Your task to perform on an android device: Clear the shopping cart on costco.com. Search for lenovo thinkpad on costco.com, select the first entry, add it to the cart, then select checkout. Image 0: 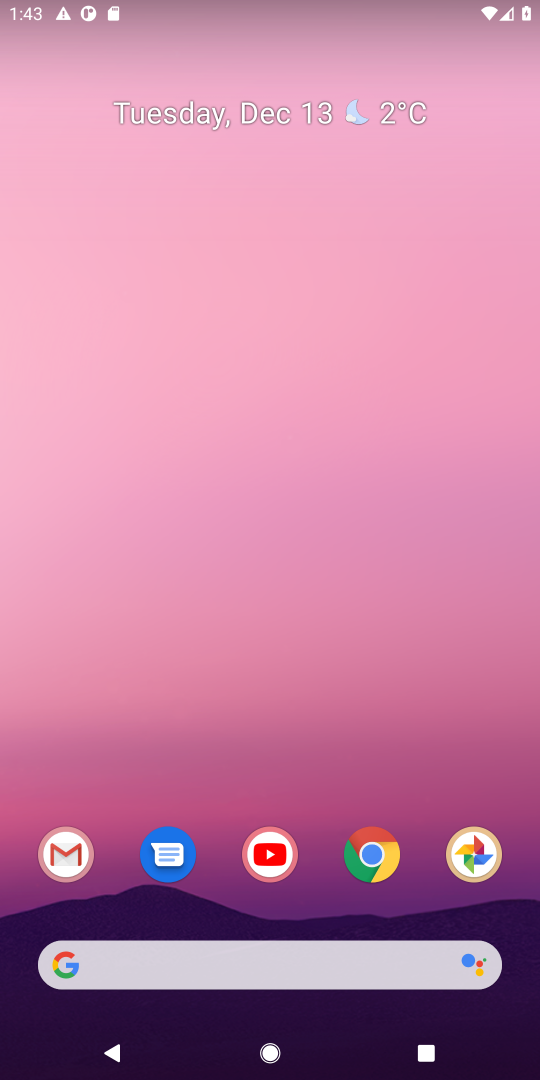
Step 0: click (232, 956)
Your task to perform on an android device: Clear the shopping cart on costco.com. Search for lenovo thinkpad on costco.com, select the first entry, add it to the cart, then select checkout. Image 1: 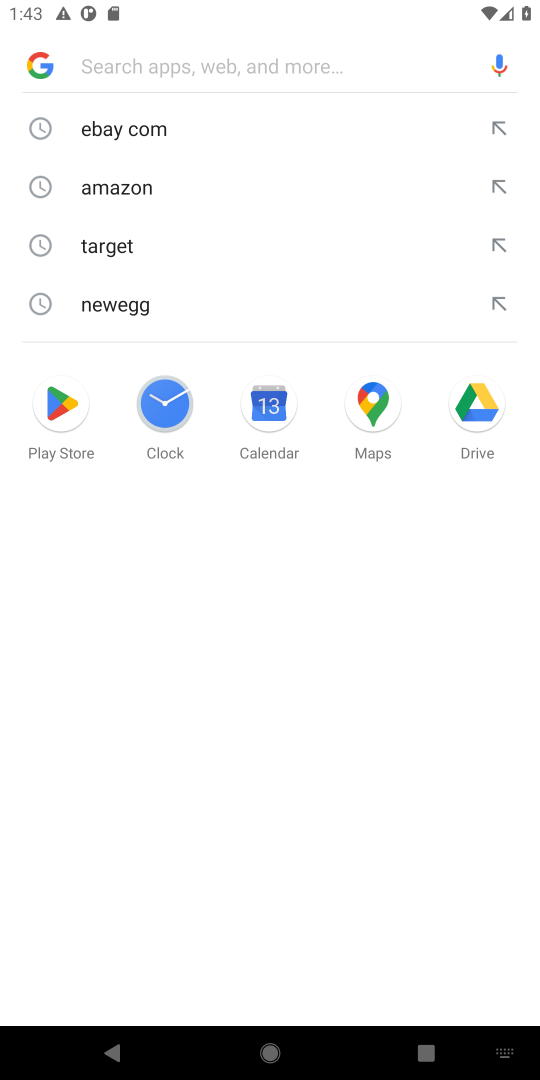
Step 1: type "costco"
Your task to perform on an android device: Clear the shopping cart on costco.com. Search for lenovo thinkpad on costco.com, select the first entry, add it to the cart, then select checkout. Image 2: 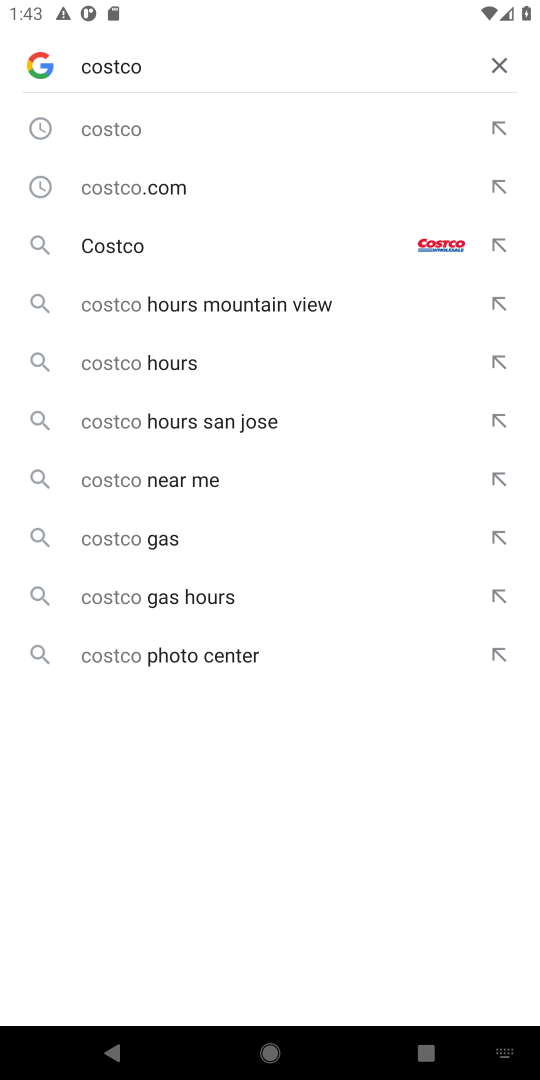
Step 2: click (279, 250)
Your task to perform on an android device: Clear the shopping cart on costco.com. Search for lenovo thinkpad on costco.com, select the first entry, add it to the cart, then select checkout. Image 3: 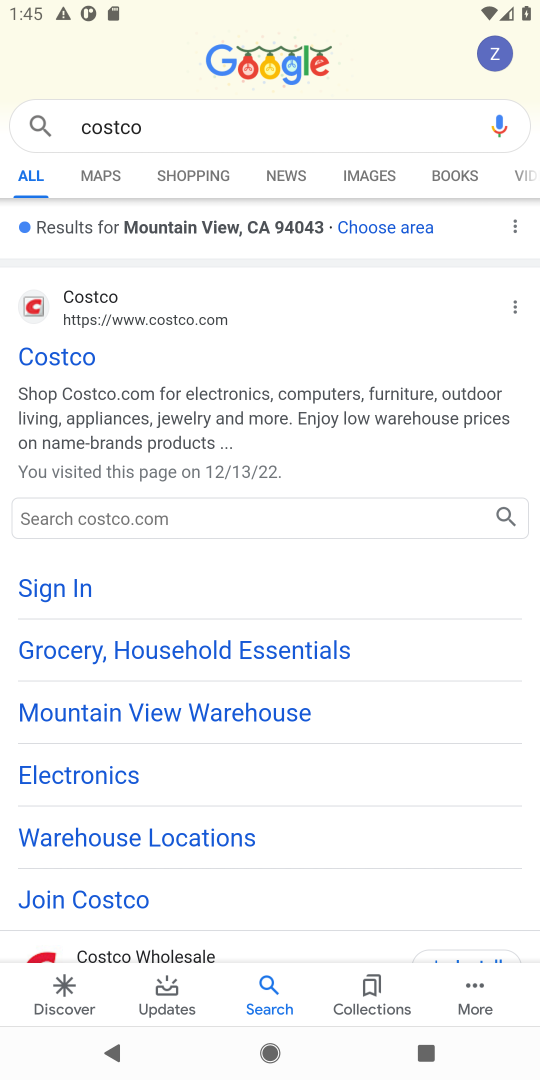
Step 3: click (52, 355)
Your task to perform on an android device: Clear the shopping cart on costco.com. Search for lenovo thinkpad on costco.com, select the first entry, add it to the cart, then select checkout. Image 4: 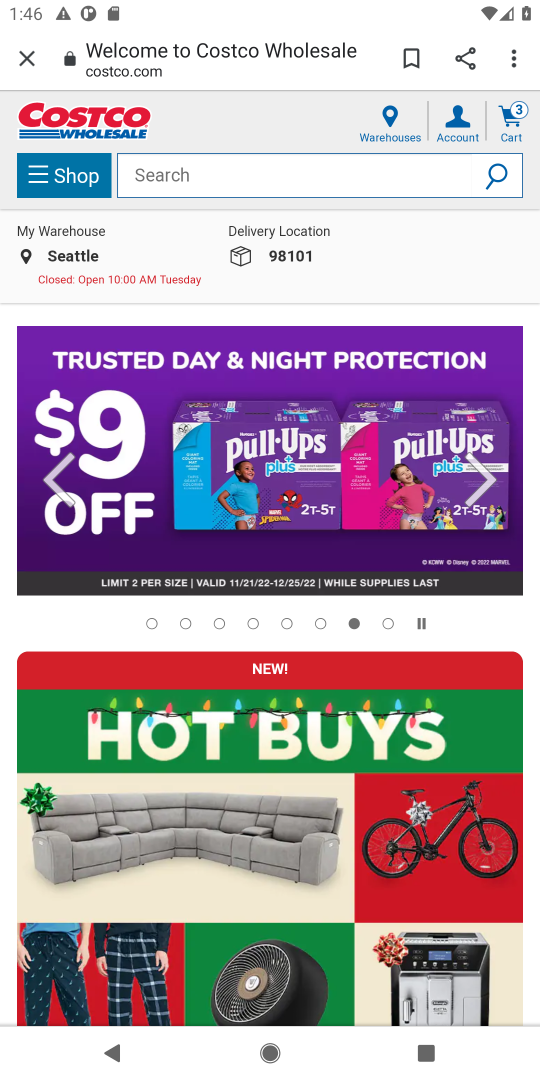
Step 4: click (389, 188)
Your task to perform on an android device: Clear the shopping cart on costco.com. Search for lenovo thinkpad on costco.com, select the first entry, add it to the cart, then select checkout. Image 5: 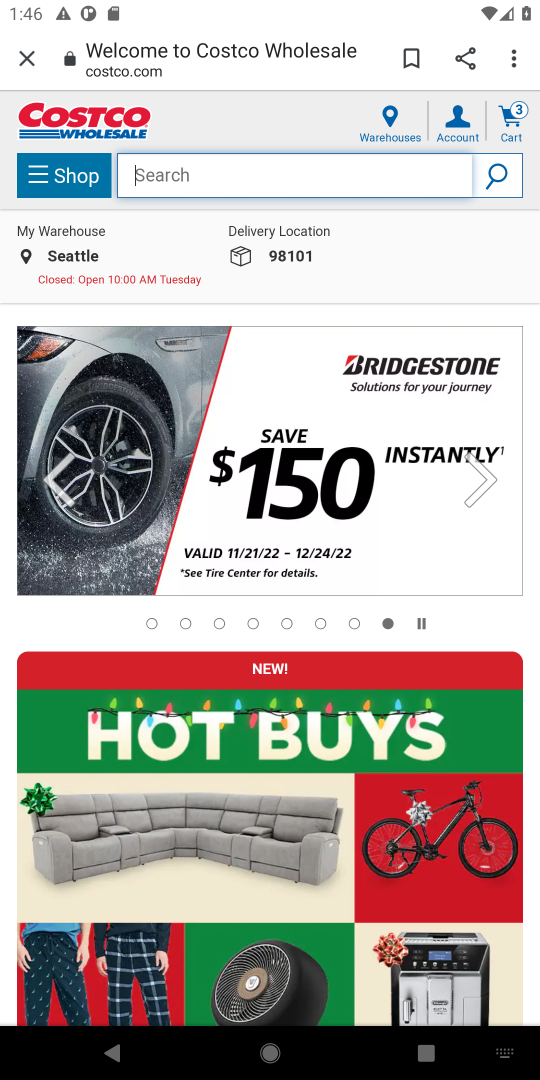
Step 5: type "lenovo thinkpad"
Your task to perform on an android device: Clear the shopping cart on costco.com. Search for lenovo thinkpad on costco.com, select the first entry, add it to the cart, then select checkout. Image 6: 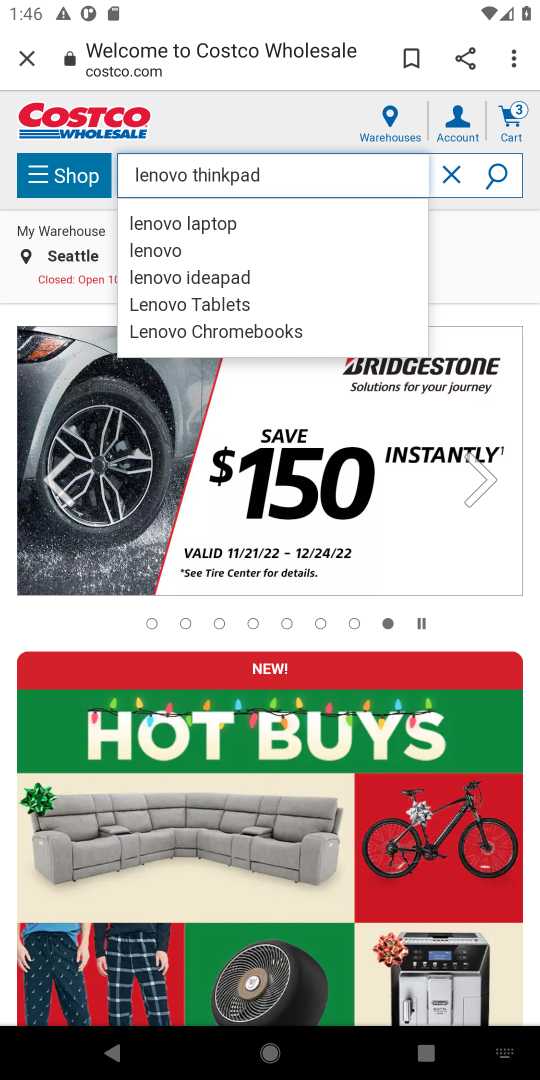
Step 6: click (482, 184)
Your task to perform on an android device: Clear the shopping cart on costco.com. Search for lenovo thinkpad on costco.com, select the first entry, add it to the cart, then select checkout. Image 7: 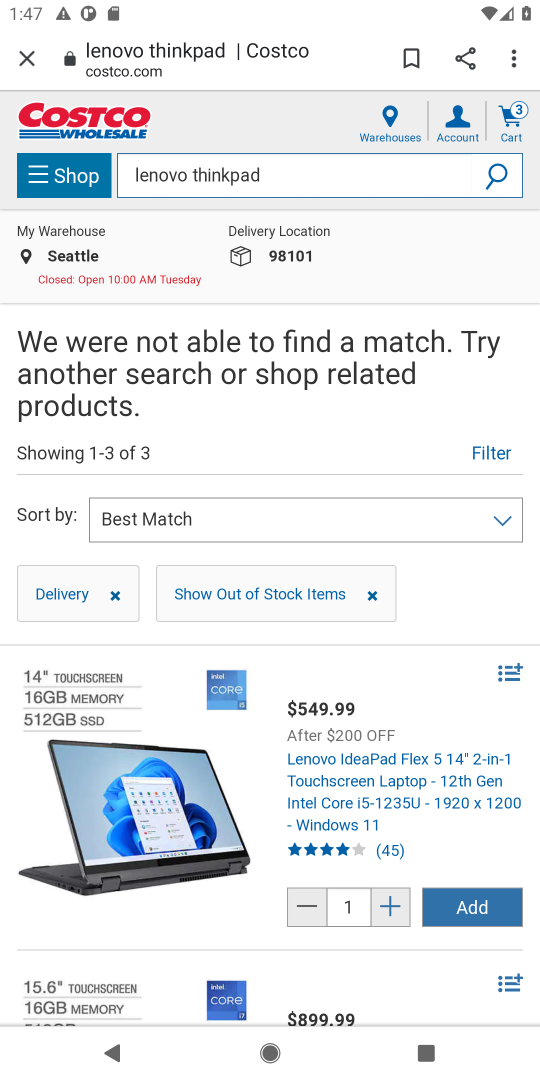
Step 7: click (481, 890)
Your task to perform on an android device: Clear the shopping cart on costco.com. Search for lenovo thinkpad on costco.com, select the first entry, add it to the cart, then select checkout. Image 8: 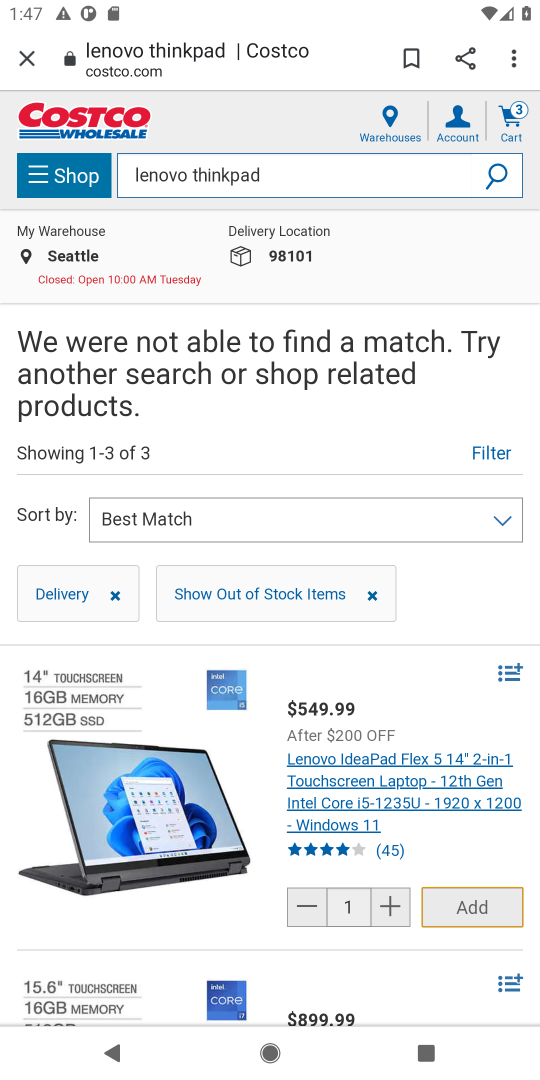
Step 8: task complete